Your task to perform on an android device: When is my next meeting? Image 0: 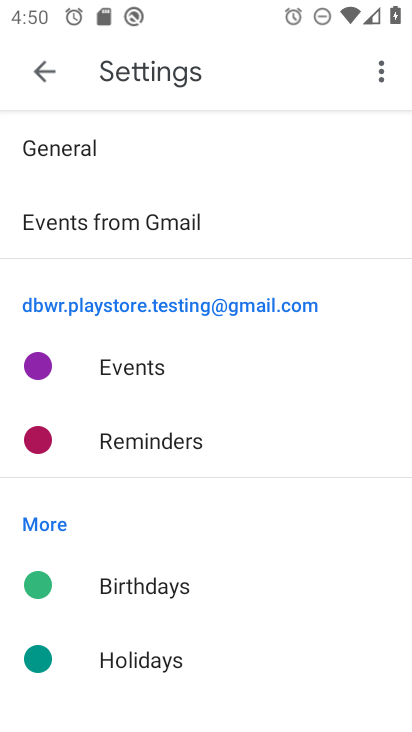
Step 0: press home button
Your task to perform on an android device: When is my next meeting? Image 1: 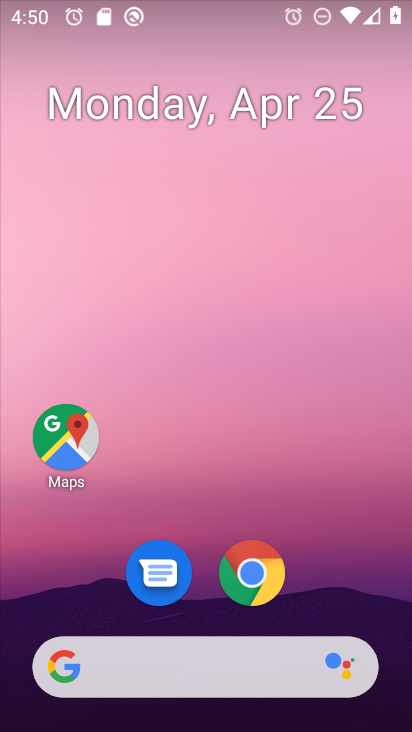
Step 1: drag from (372, 630) to (388, 24)
Your task to perform on an android device: When is my next meeting? Image 2: 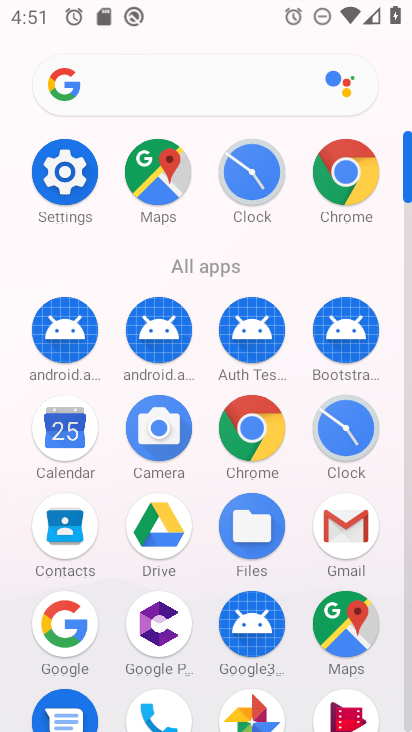
Step 2: click (58, 433)
Your task to perform on an android device: When is my next meeting? Image 3: 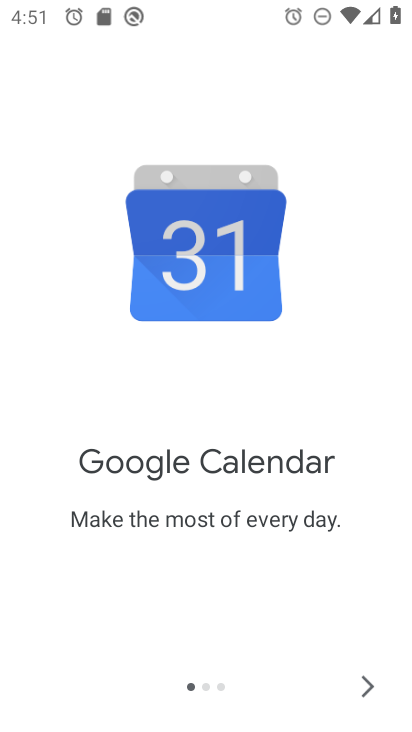
Step 3: click (362, 691)
Your task to perform on an android device: When is my next meeting? Image 4: 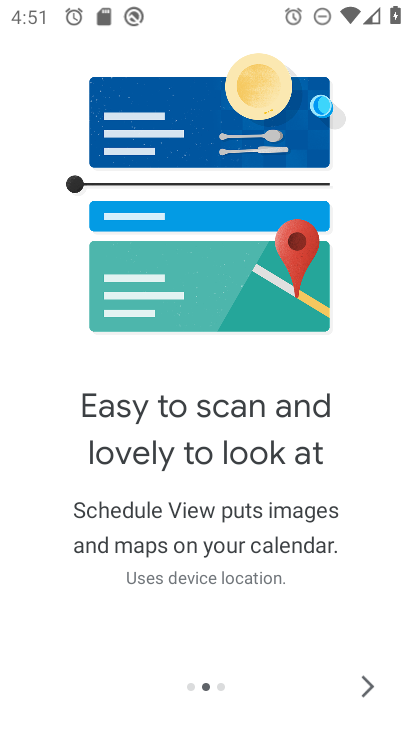
Step 4: click (362, 691)
Your task to perform on an android device: When is my next meeting? Image 5: 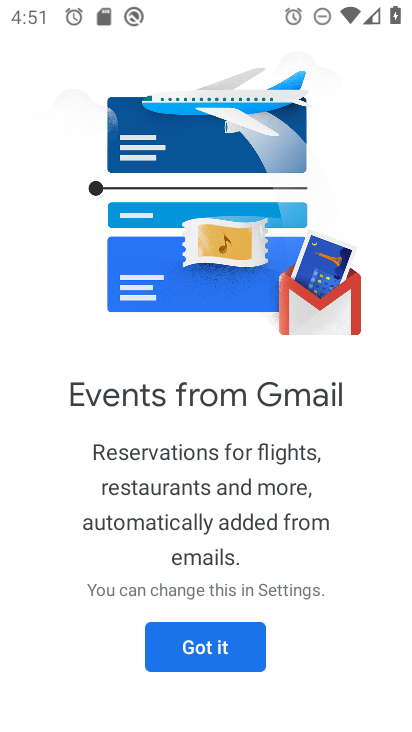
Step 5: click (210, 651)
Your task to perform on an android device: When is my next meeting? Image 6: 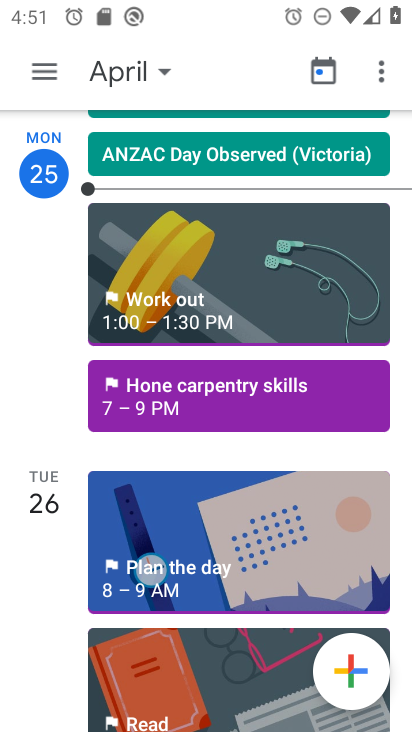
Step 6: drag from (225, 513) to (208, 313)
Your task to perform on an android device: When is my next meeting? Image 7: 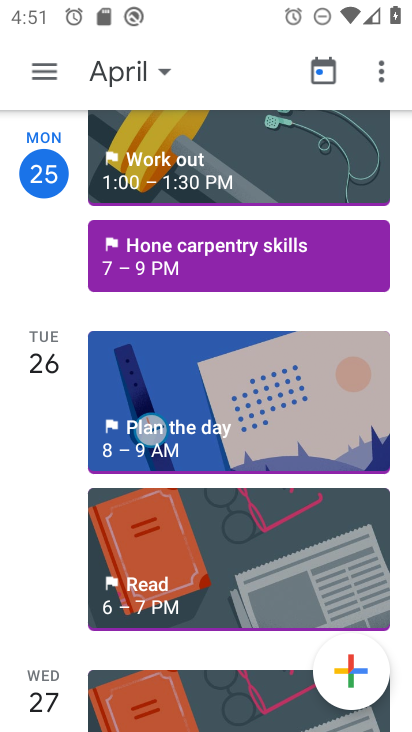
Step 7: drag from (180, 594) to (201, 395)
Your task to perform on an android device: When is my next meeting? Image 8: 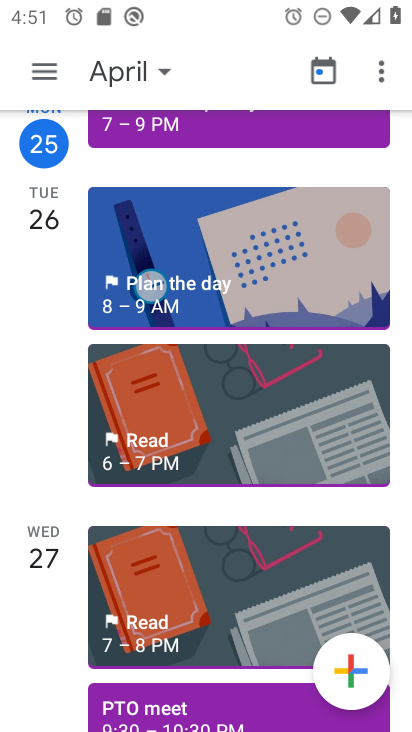
Step 8: click (158, 60)
Your task to perform on an android device: When is my next meeting? Image 9: 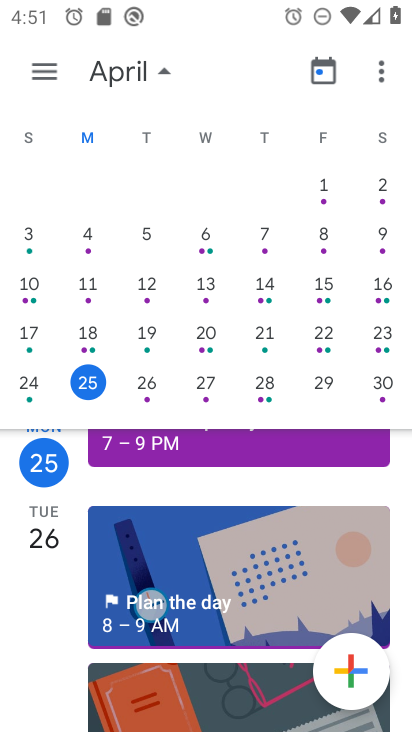
Step 9: click (136, 381)
Your task to perform on an android device: When is my next meeting? Image 10: 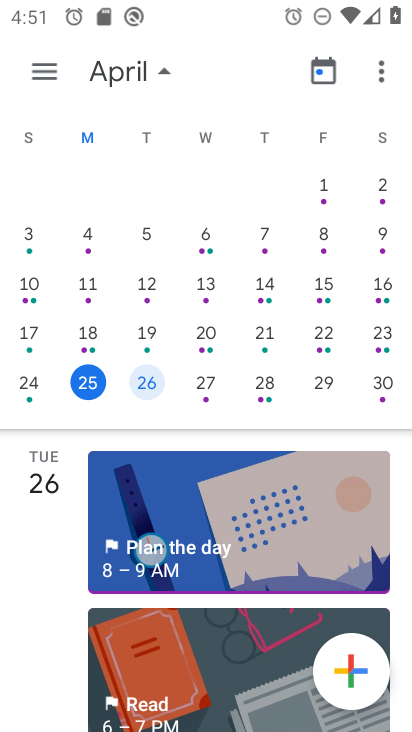
Step 10: click (142, 433)
Your task to perform on an android device: When is my next meeting? Image 11: 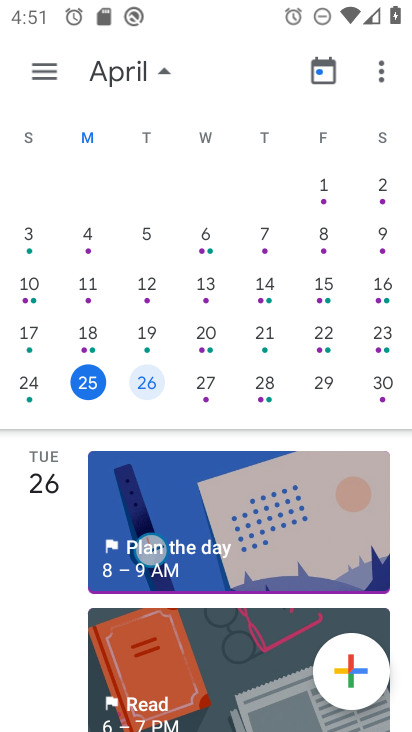
Step 11: drag from (126, 561) to (121, 288)
Your task to perform on an android device: When is my next meeting? Image 12: 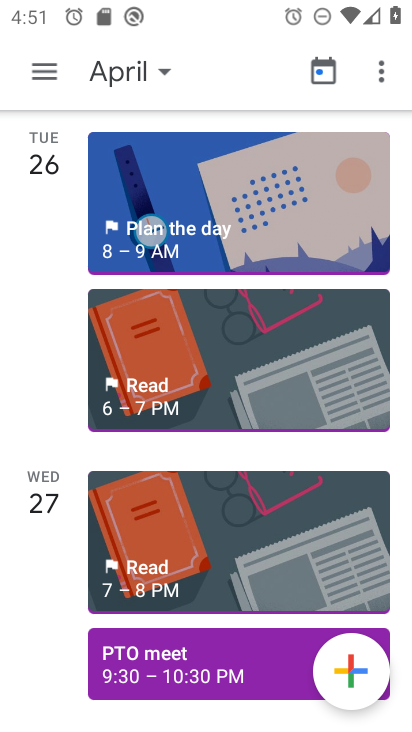
Step 12: drag from (125, 403) to (162, 596)
Your task to perform on an android device: When is my next meeting? Image 13: 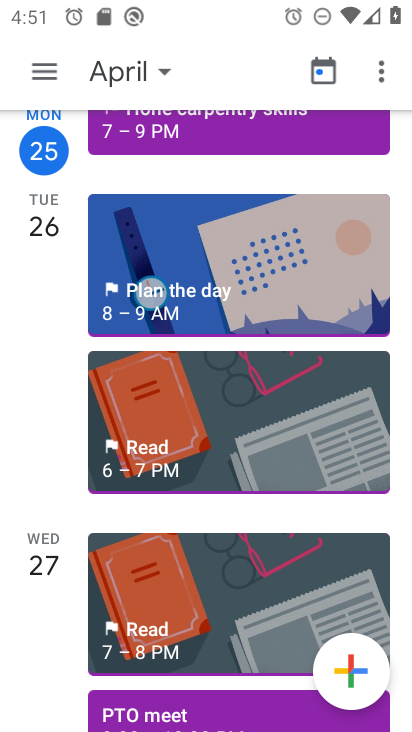
Step 13: drag from (217, 353) to (208, 482)
Your task to perform on an android device: When is my next meeting? Image 14: 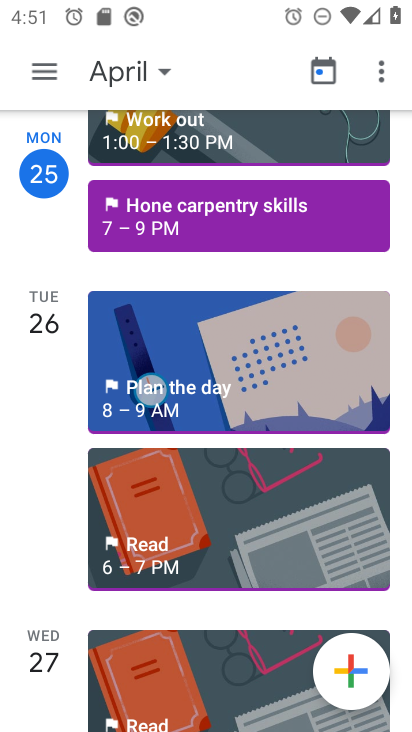
Step 14: click (175, 207)
Your task to perform on an android device: When is my next meeting? Image 15: 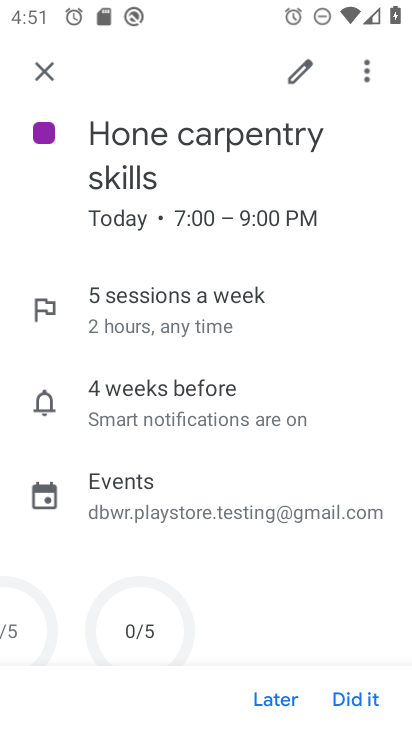
Step 15: task complete